Your task to perform on an android device: Open the Play Movies app and select the watchlist tab. Image 0: 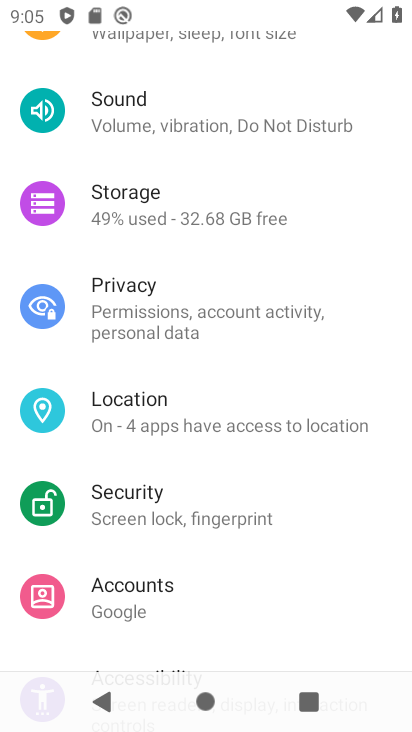
Step 0: press home button
Your task to perform on an android device: Open the Play Movies app and select the watchlist tab. Image 1: 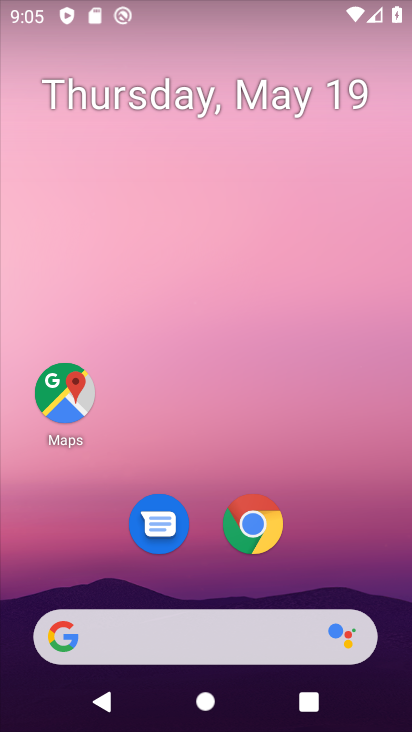
Step 1: drag from (322, 534) to (312, 23)
Your task to perform on an android device: Open the Play Movies app and select the watchlist tab. Image 2: 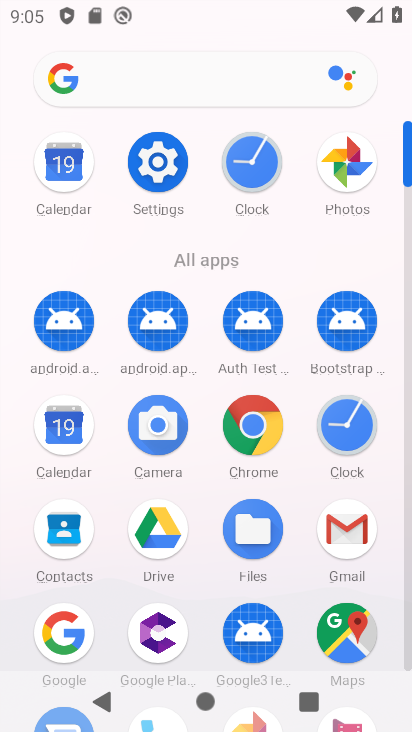
Step 2: drag from (287, 432) to (284, 141)
Your task to perform on an android device: Open the Play Movies app and select the watchlist tab. Image 3: 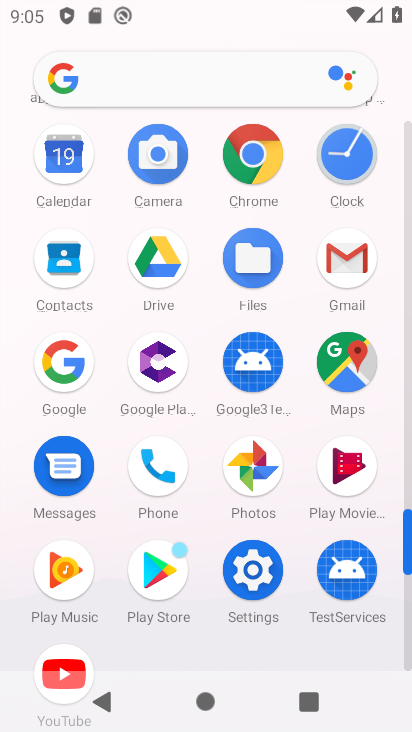
Step 3: click (343, 464)
Your task to perform on an android device: Open the Play Movies app and select the watchlist tab. Image 4: 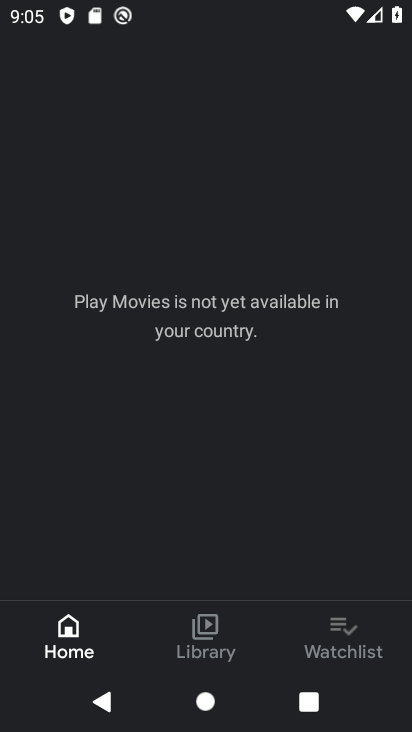
Step 4: click (347, 636)
Your task to perform on an android device: Open the Play Movies app and select the watchlist tab. Image 5: 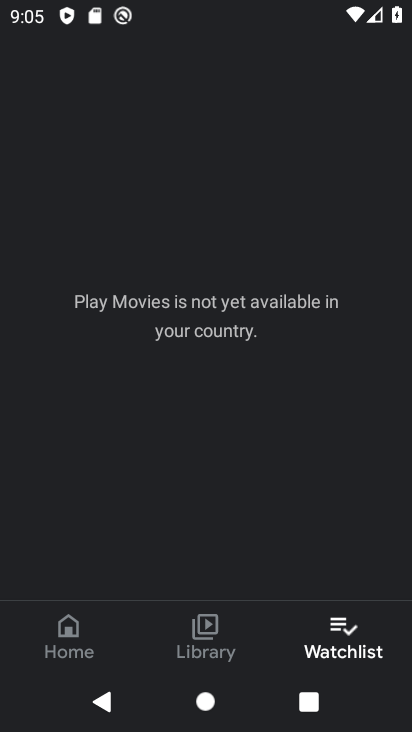
Step 5: task complete